Your task to perform on an android device: Open Chrome and go to settings Image 0: 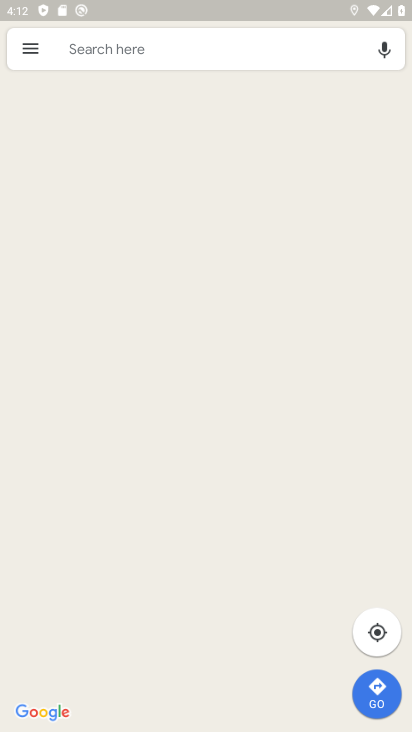
Step 0: press home button
Your task to perform on an android device: Open Chrome and go to settings Image 1: 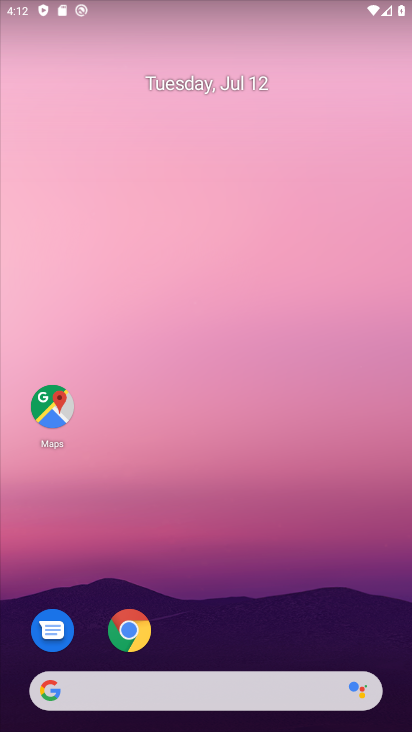
Step 1: drag from (231, 690) to (266, 103)
Your task to perform on an android device: Open Chrome and go to settings Image 2: 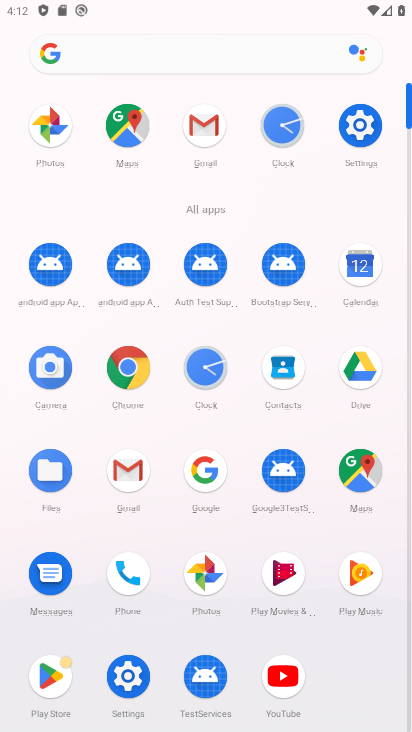
Step 2: click (118, 373)
Your task to perform on an android device: Open Chrome and go to settings Image 3: 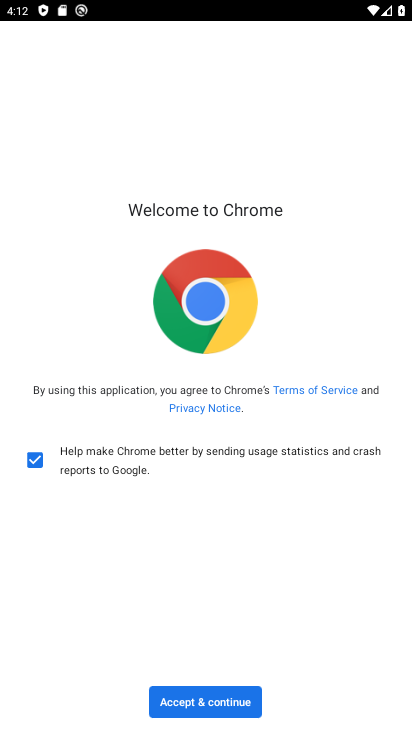
Step 3: click (236, 697)
Your task to perform on an android device: Open Chrome and go to settings Image 4: 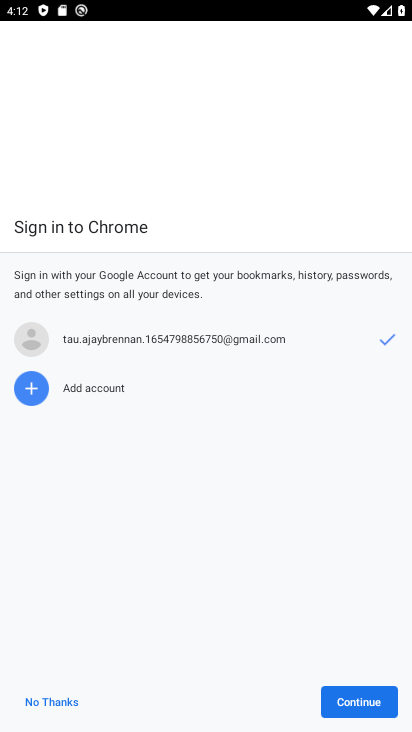
Step 4: click (330, 702)
Your task to perform on an android device: Open Chrome and go to settings Image 5: 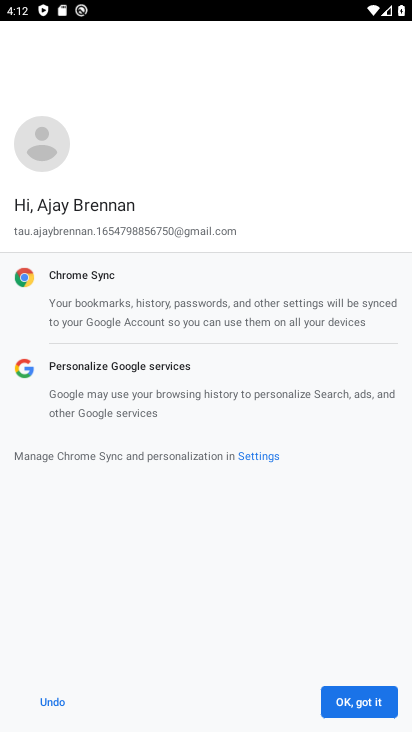
Step 5: click (350, 709)
Your task to perform on an android device: Open Chrome and go to settings Image 6: 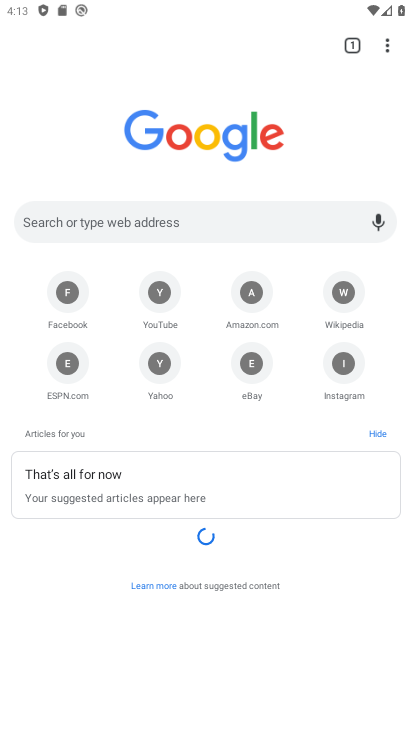
Step 6: task complete